Your task to perform on an android device: move an email to a new category in the gmail app Image 0: 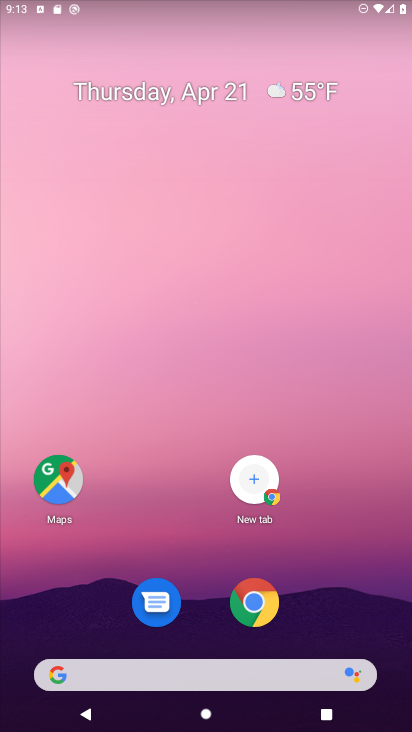
Step 0: drag from (218, 577) to (193, 116)
Your task to perform on an android device: move an email to a new category in the gmail app Image 1: 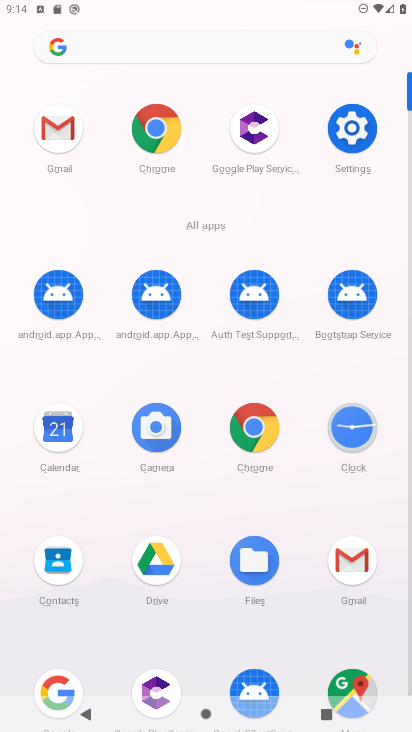
Step 1: click (349, 557)
Your task to perform on an android device: move an email to a new category in the gmail app Image 2: 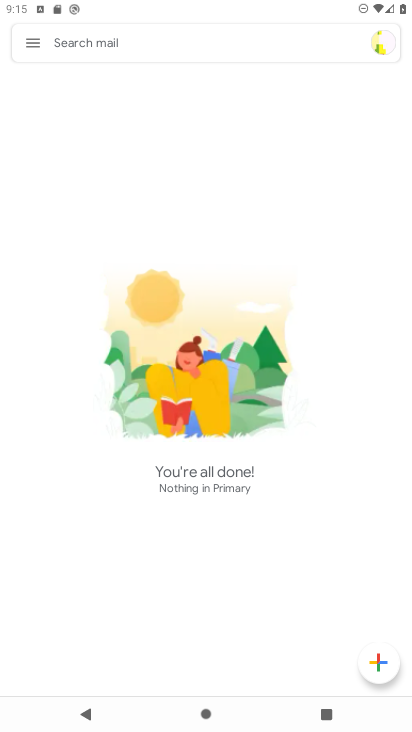
Step 2: task complete